Your task to perform on an android device: Open Chrome and go to settings Image 0: 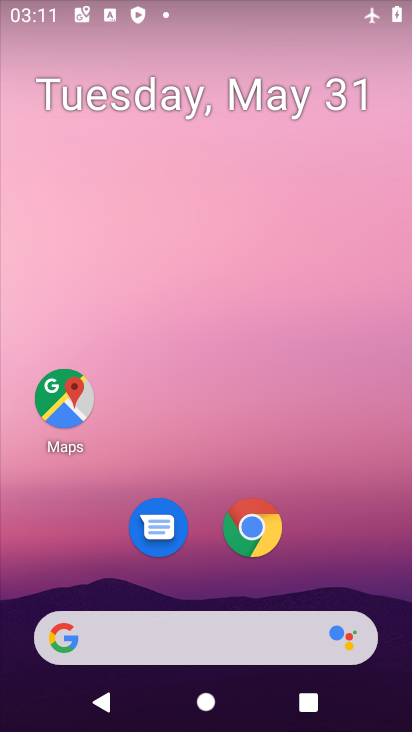
Step 0: click (251, 528)
Your task to perform on an android device: Open Chrome and go to settings Image 1: 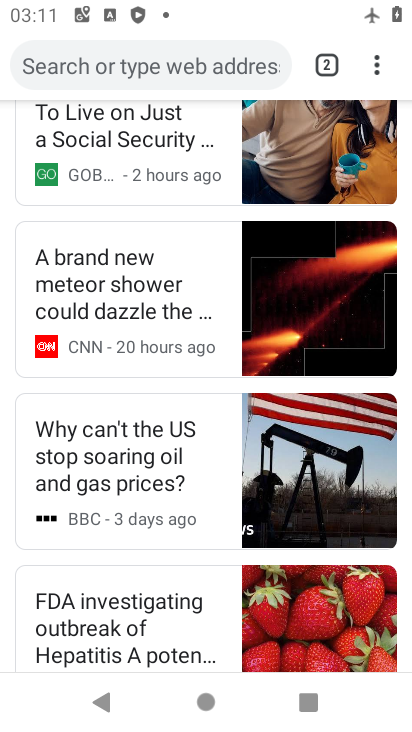
Step 1: click (373, 70)
Your task to perform on an android device: Open Chrome and go to settings Image 2: 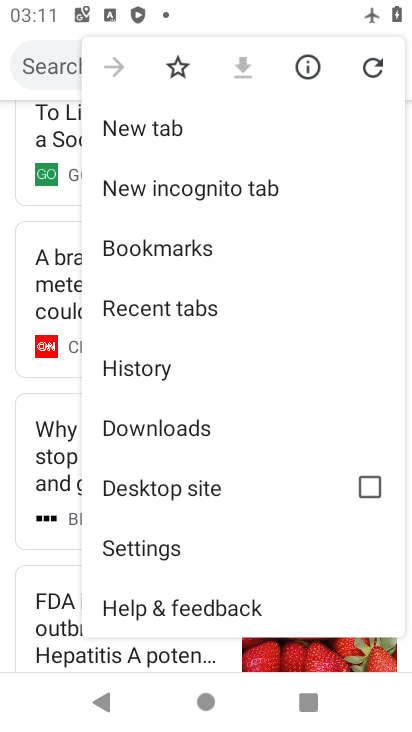
Step 2: click (142, 553)
Your task to perform on an android device: Open Chrome and go to settings Image 3: 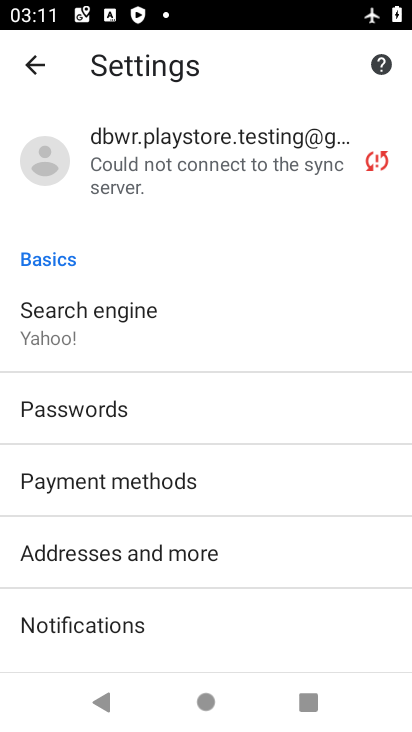
Step 3: task complete